Your task to perform on an android device: turn on bluetooth scan Image 0: 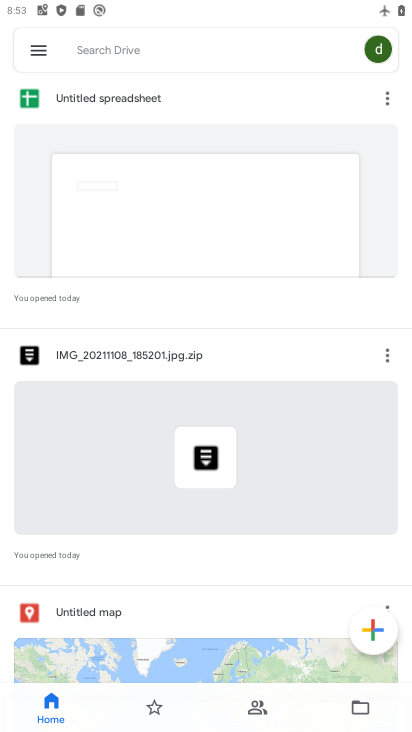
Step 0: press home button
Your task to perform on an android device: turn on bluetooth scan Image 1: 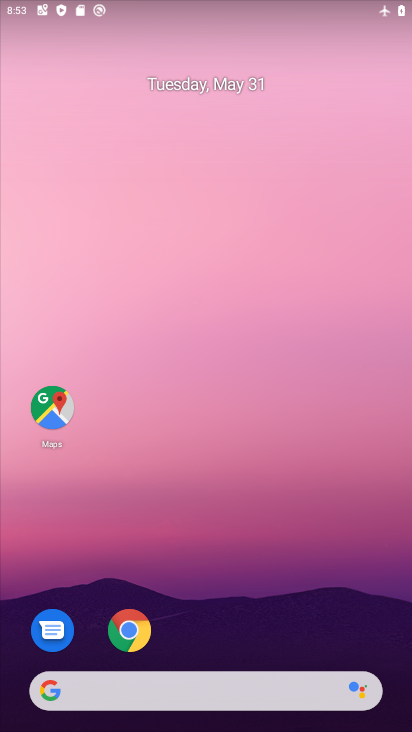
Step 1: drag from (227, 627) to (223, 186)
Your task to perform on an android device: turn on bluetooth scan Image 2: 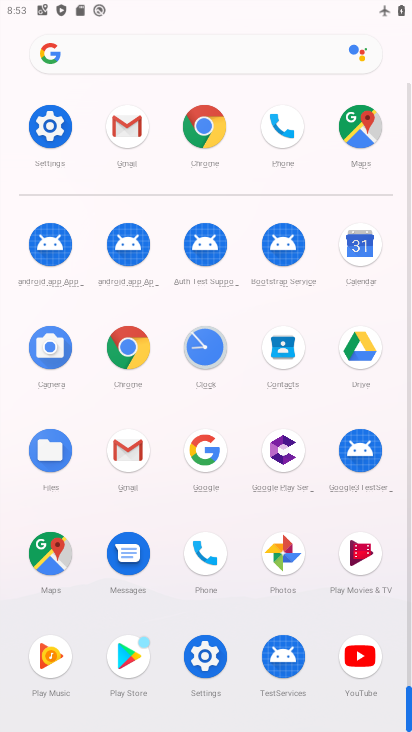
Step 2: click (39, 122)
Your task to perform on an android device: turn on bluetooth scan Image 3: 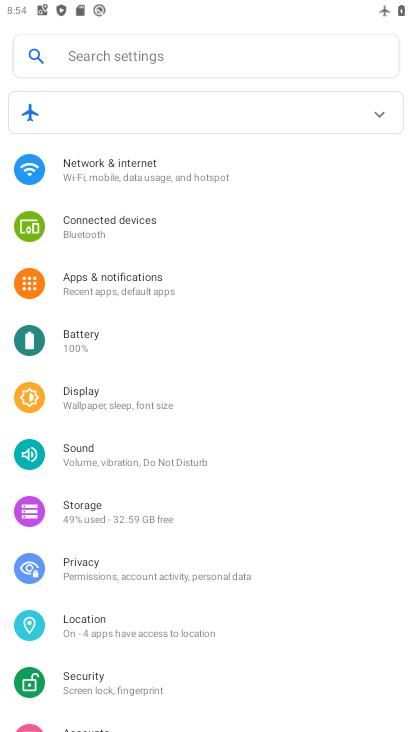
Step 3: click (169, 50)
Your task to perform on an android device: turn on bluetooth scan Image 4: 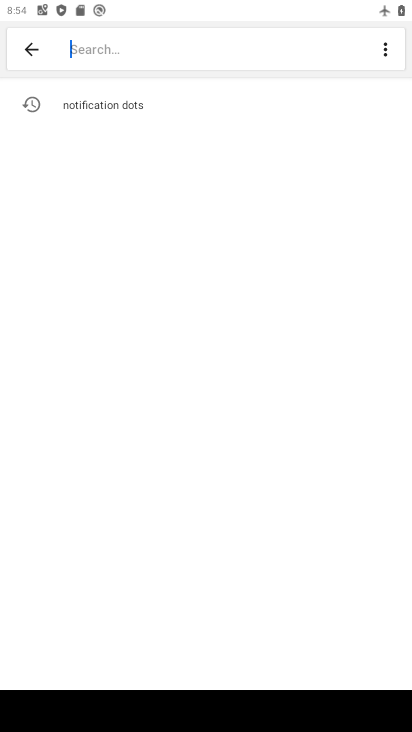
Step 4: type " bluetooth scan"
Your task to perform on an android device: turn on bluetooth scan Image 5: 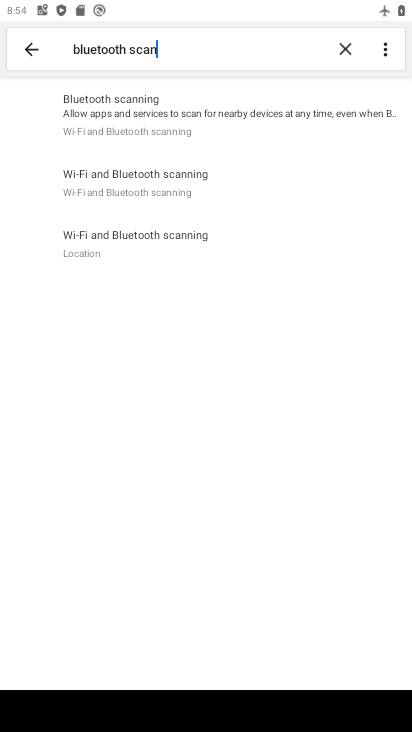
Step 5: click (213, 55)
Your task to perform on an android device: turn on bluetooth scan Image 6: 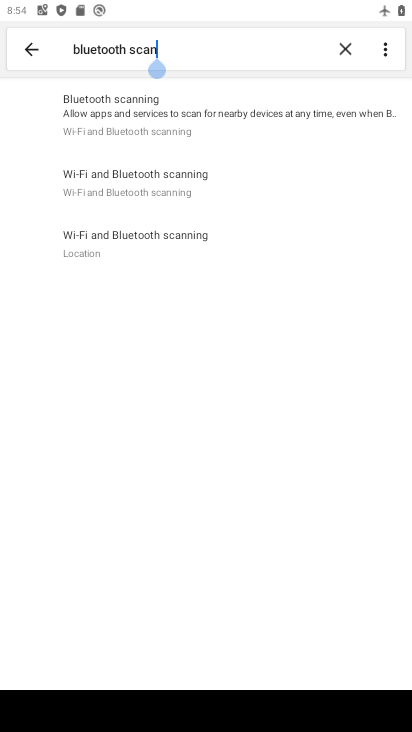
Step 6: click (173, 97)
Your task to perform on an android device: turn on bluetooth scan Image 7: 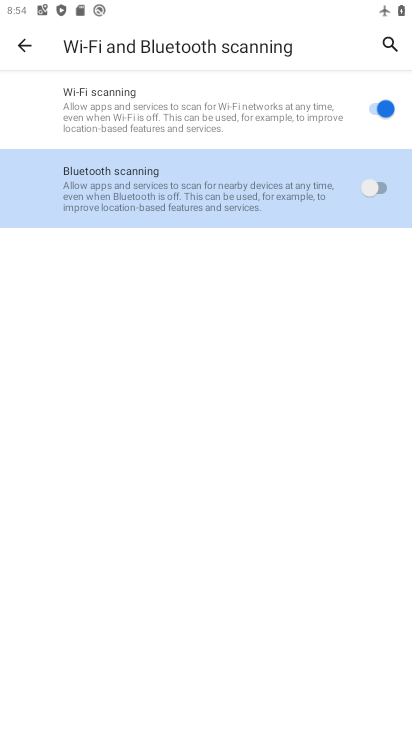
Step 7: click (378, 188)
Your task to perform on an android device: turn on bluetooth scan Image 8: 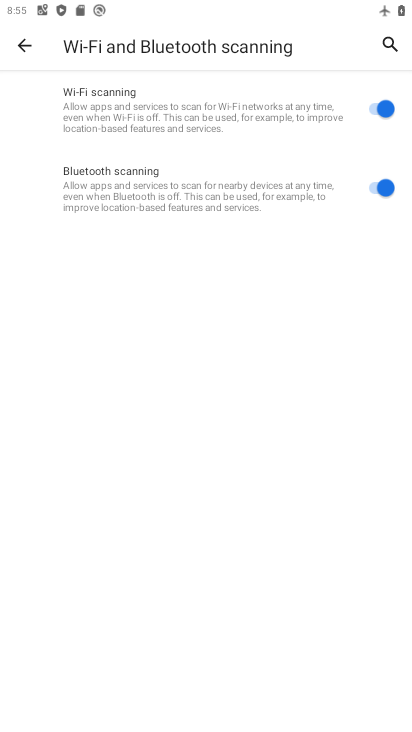
Step 8: task complete